Your task to perform on an android device: Open Maps and search for coffee Image 0: 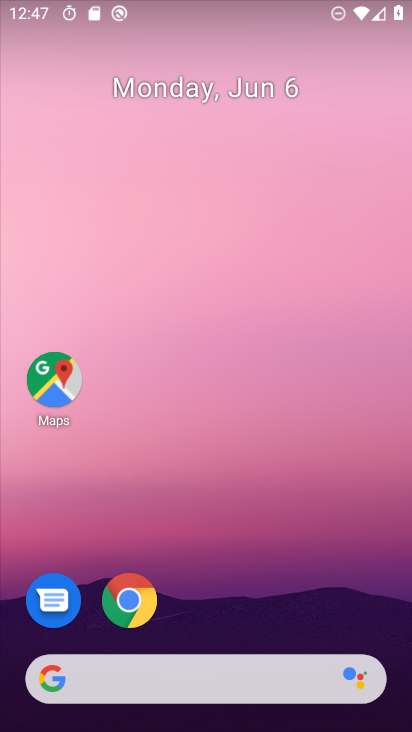
Step 0: click (57, 380)
Your task to perform on an android device: Open Maps and search for coffee Image 1: 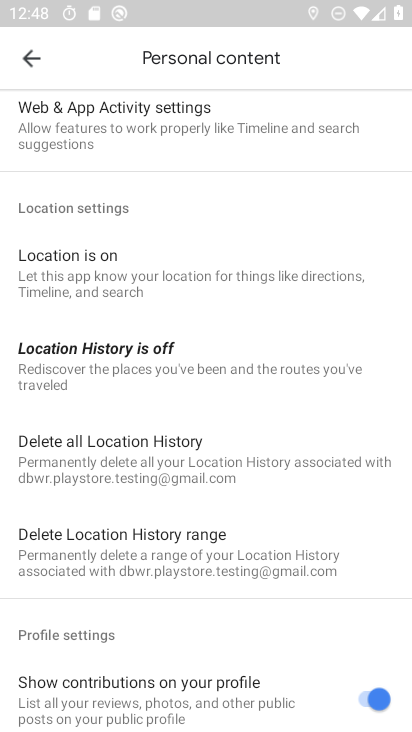
Step 1: click (34, 63)
Your task to perform on an android device: Open Maps and search for coffee Image 2: 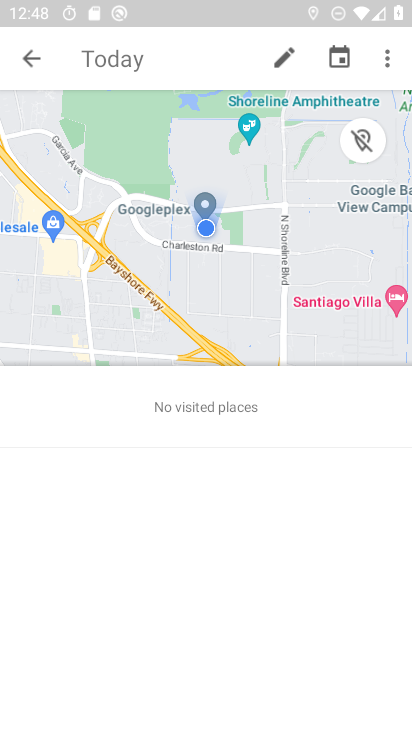
Step 2: click (24, 61)
Your task to perform on an android device: Open Maps and search for coffee Image 3: 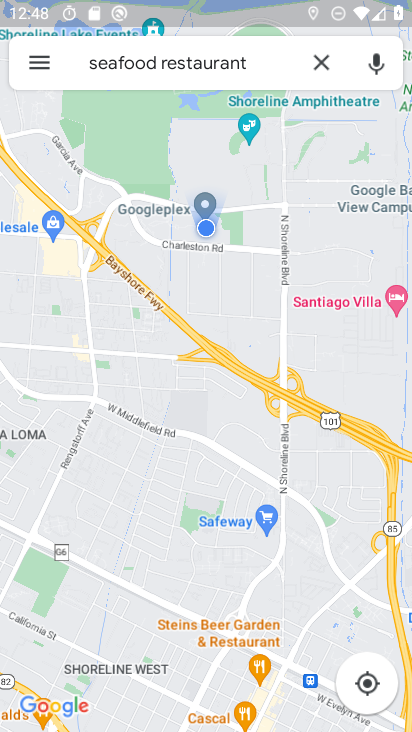
Step 3: click (132, 54)
Your task to perform on an android device: Open Maps and search for coffee Image 4: 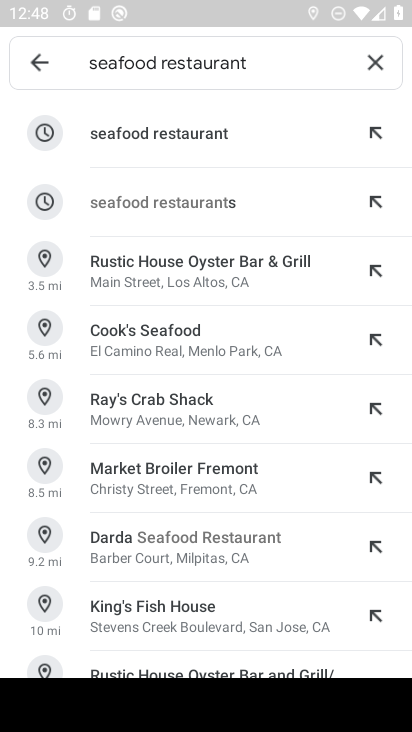
Step 4: click (376, 62)
Your task to perform on an android device: Open Maps and search for coffee Image 5: 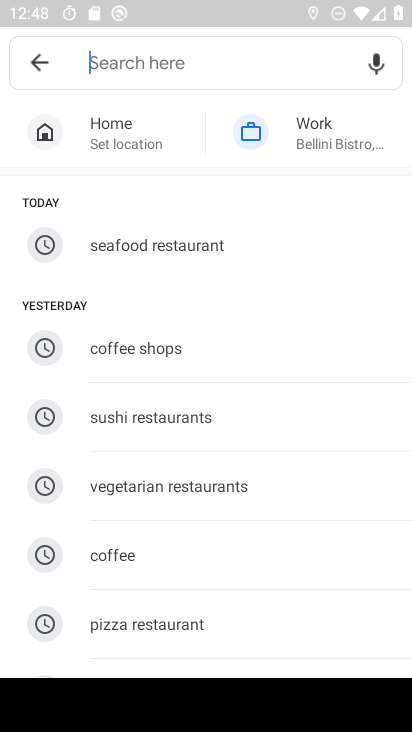
Step 5: click (156, 553)
Your task to perform on an android device: Open Maps and search for coffee Image 6: 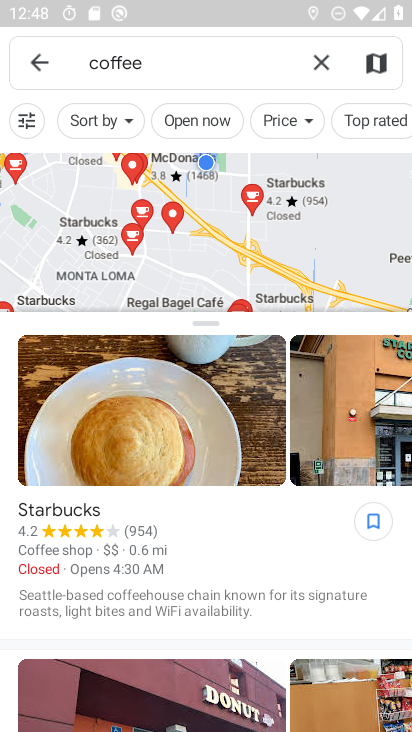
Step 6: task complete